Your task to perform on an android device: open wifi settings Image 0: 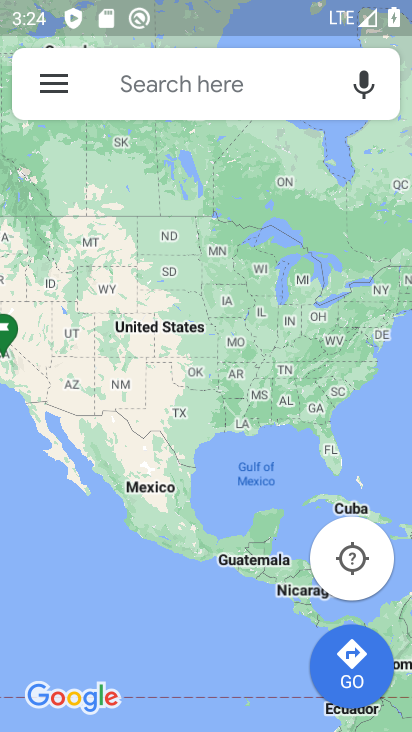
Step 0: press home button
Your task to perform on an android device: open wifi settings Image 1: 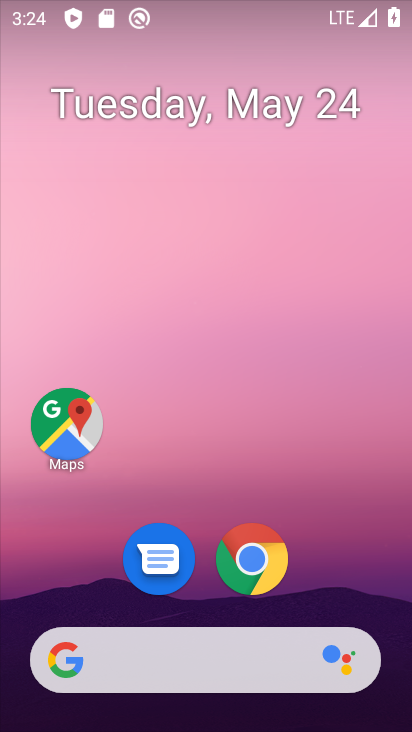
Step 1: drag from (347, 520) to (226, 126)
Your task to perform on an android device: open wifi settings Image 2: 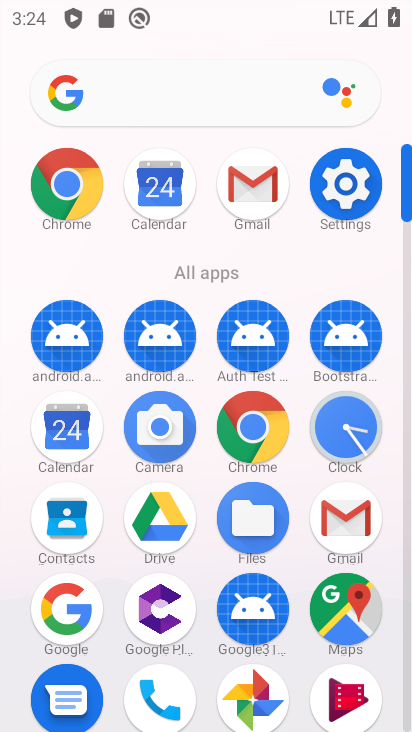
Step 2: click (350, 178)
Your task to perform on an android device: open wifi settings Image 3: 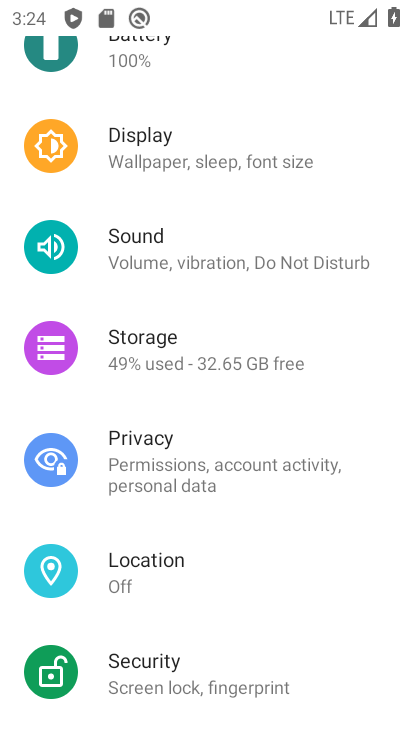
Step 3: drag from (229, 221) to (194, 372)
Your task to perform on an android device: open wifi settings Image 4: 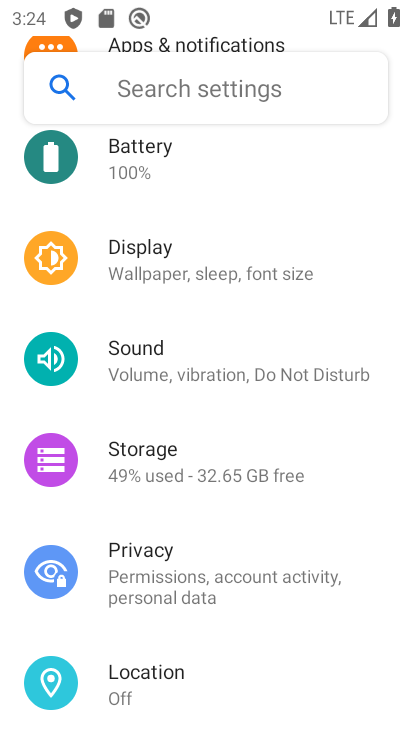
Step 4: drag from (208, 232) to (207, 358)
Your task to perform on an android device: open wifi settings Image 5: 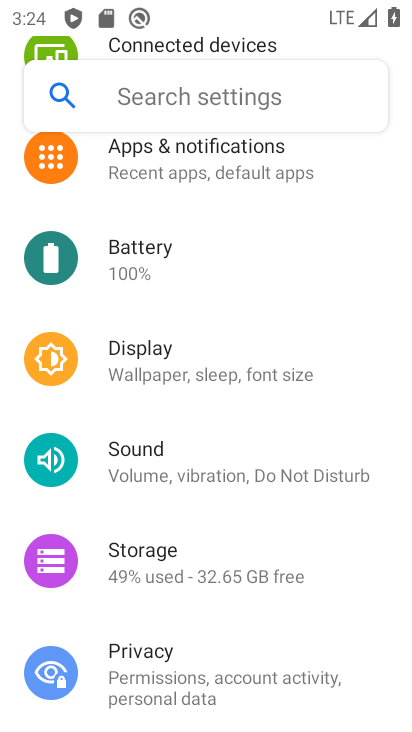
Step 5: drag from (223, 232) to (240, 380)
Your task to perform on an android device: open wifi settings Image 6: 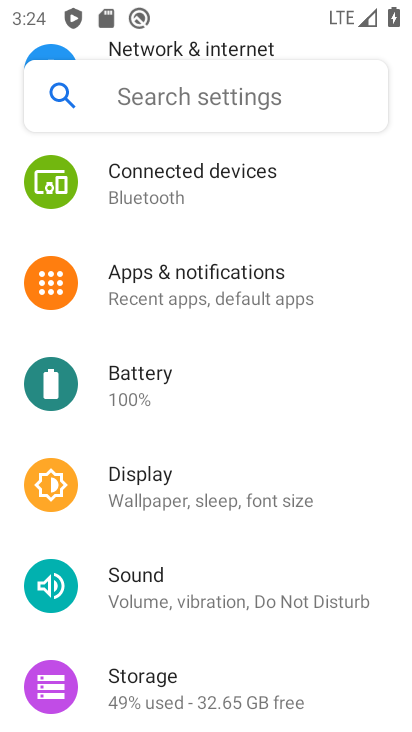
Step 6: drag from (244, 239) to (277, 449)
Your task to perform on an android device: open wifi settings Image 7: 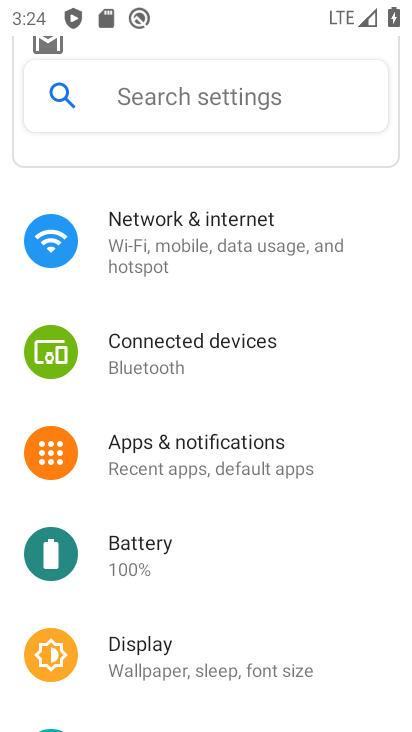
Step 7: click (198, 235)
Your task to perform on an android device: open wifi settings Image 8: 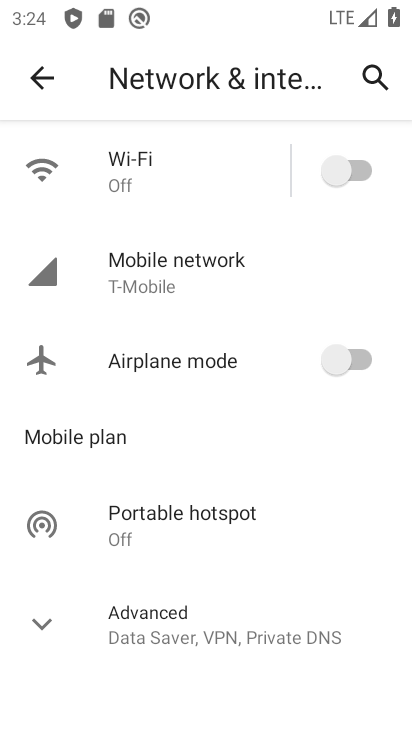
Step 8: click (126, 172)
Your task to perform on an android device: open wifi settings Image 9: 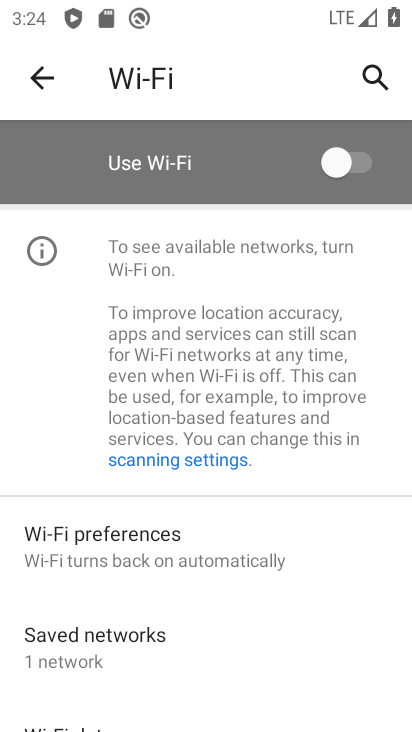
Step 9: task complete